Your task to perform on an android device: turn notification dots off Image 0: 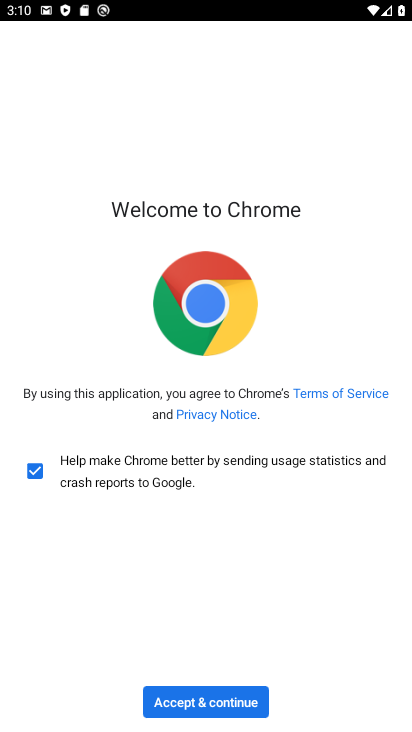
Step 0: press back button
Your task to perform on an android device: turn notification dots off Image 1: 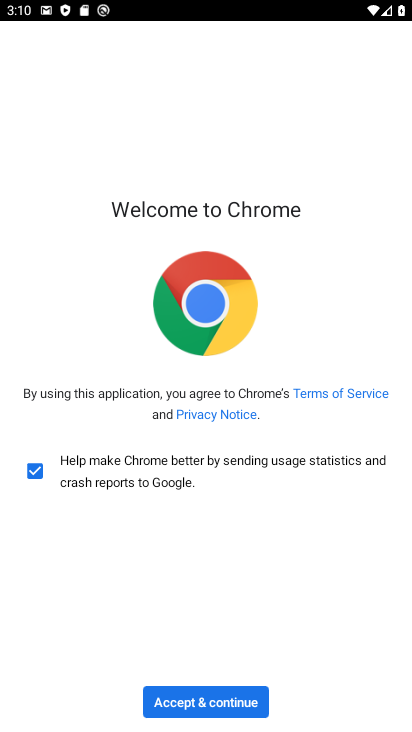
Step 1: press back button
Your task to perform on an android device: turn notification dots off Image 2: 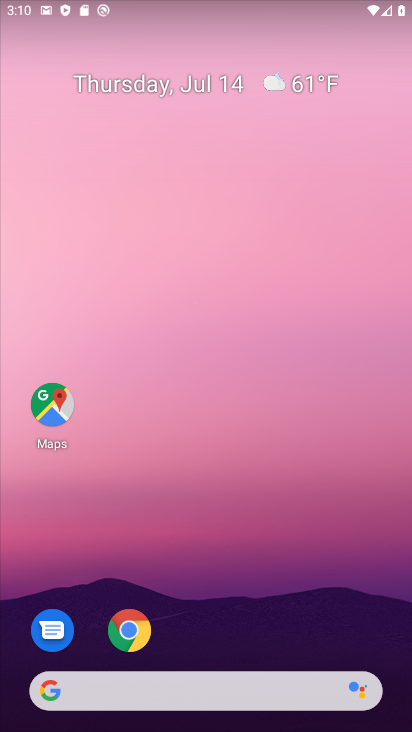
Step 2: drag from (198, 674) to (96, 57)
Your task to perform on an android device: turn notification dots off Image 3: 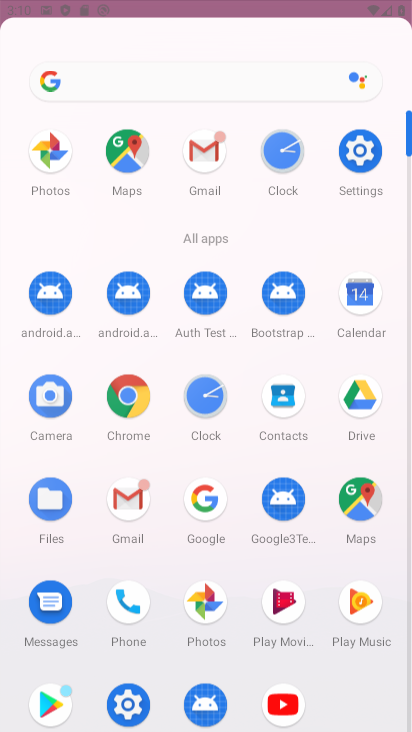
Step 3: drag from (254, 517) to (141, 12)
Your task to perform on an android device: turn notification dots off Image 4: 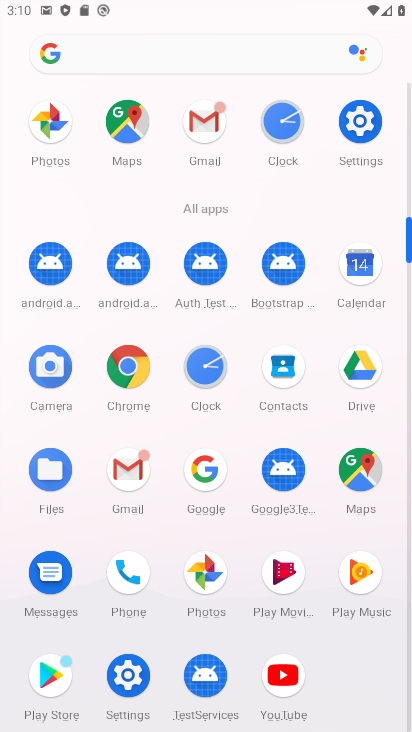
Step 4: click (364, 123)
Your task to perform on an android device: turn notification dots off Image 5: 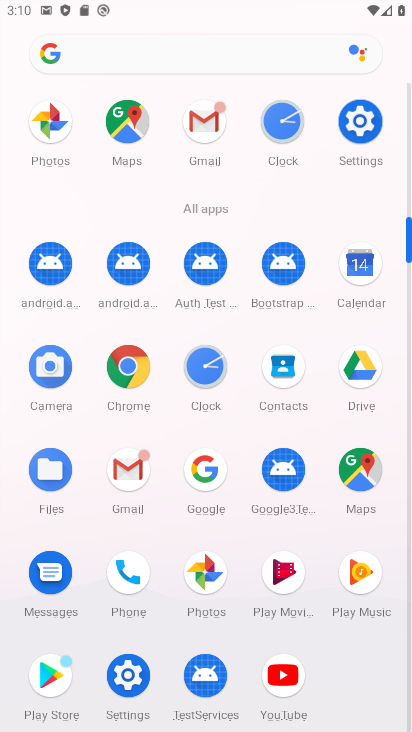
Step 5: click (363, 124)
Your task to perform on an android device: turn notification dots off Image 6: 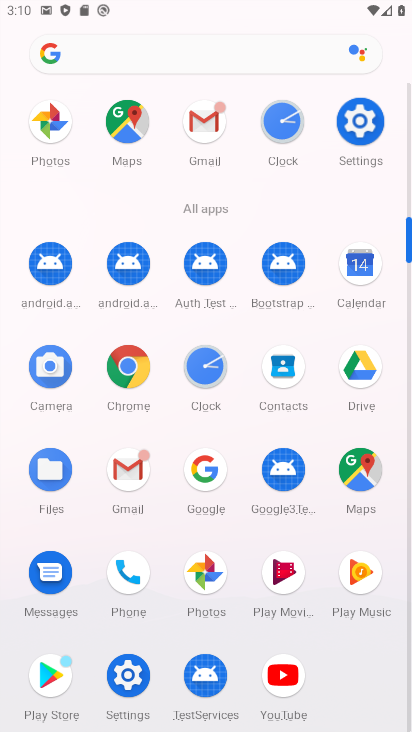
Step 6: click (360, 128)
Your task to perform on an android device: turn notification dots off Image 7: 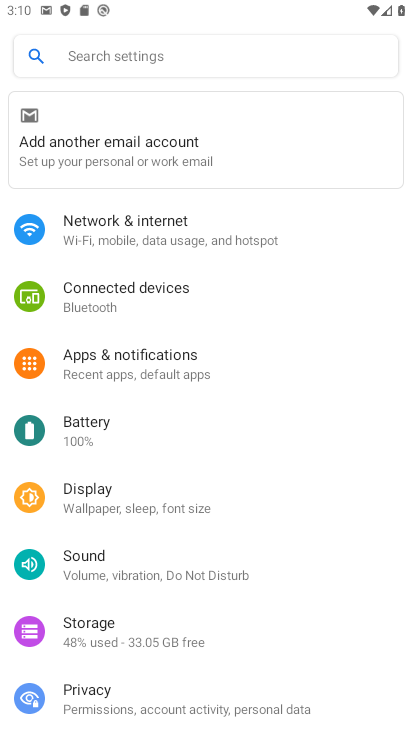
Step 7: click (128, 360)
Your task to perform on an android device: turn notification dots off Image 8: 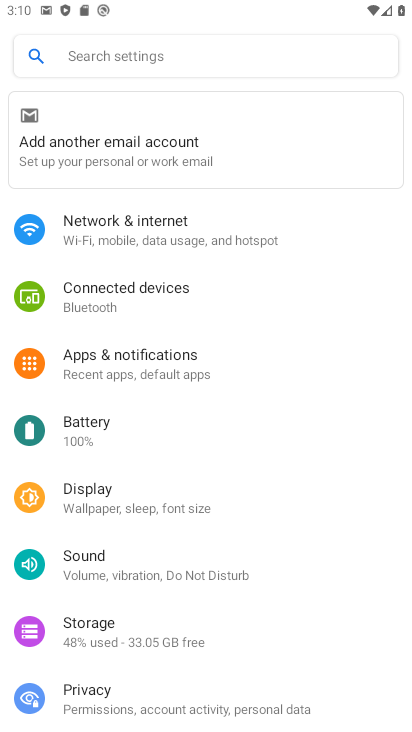
Step 8: click (128, 360)
Your task to perform on an android device: turn notification dots off Image 9: 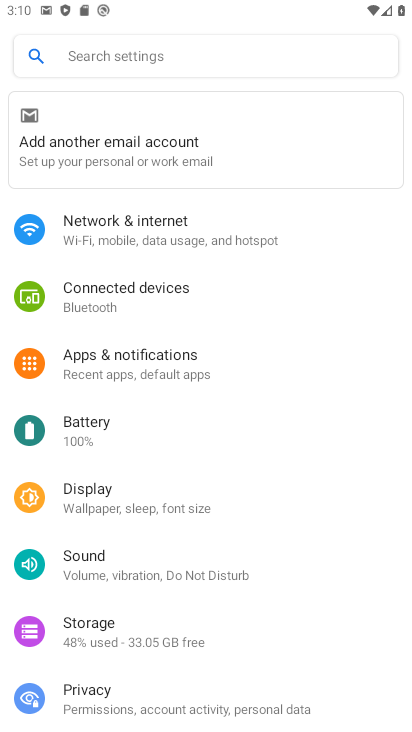
Step 9: click (128, 360)
Your task to perform on an android device: turn notification dots off Image 10: 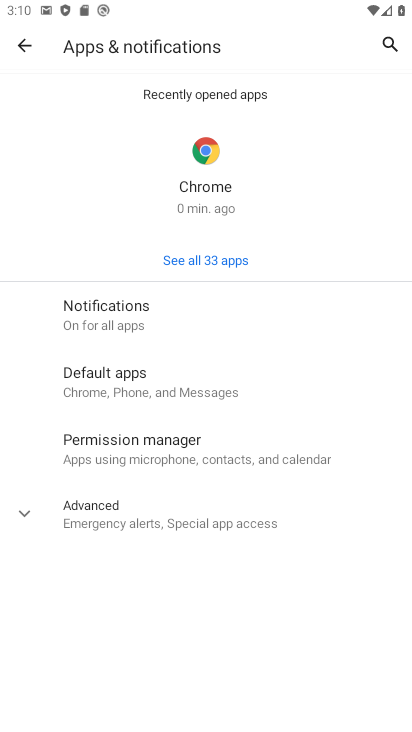
Step 10: click (66, 313)
Your task to perform on an android device: turn notification dots off Image 11: 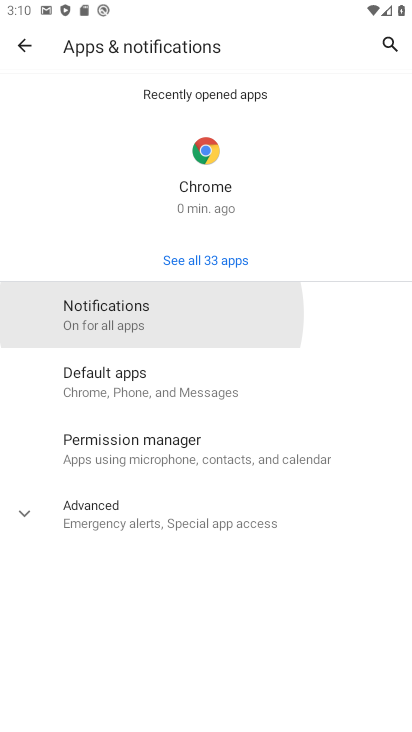
Step 11: click (76, 315)
Your task to perform on an android device: turn notification dots off Image 12: 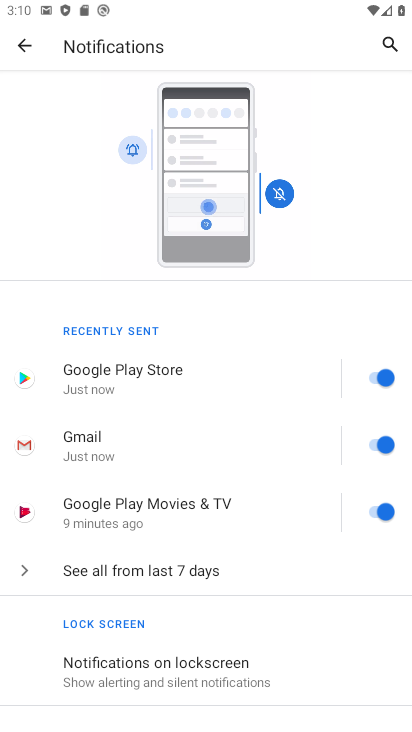
Step 12: drag from (188, 479) to (131, 361)
Your task to perform on an android device: turn notification dots off Image 13: 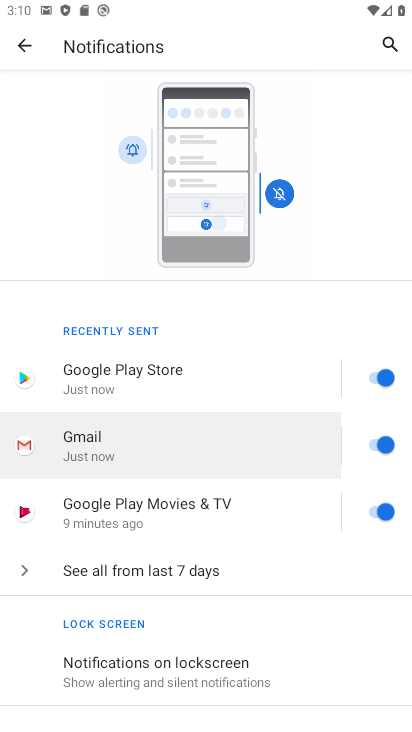
Step 13: drag from (150, 563) to (110, 322)
Your task to perform on an android device: turn notification dots off Image 14: 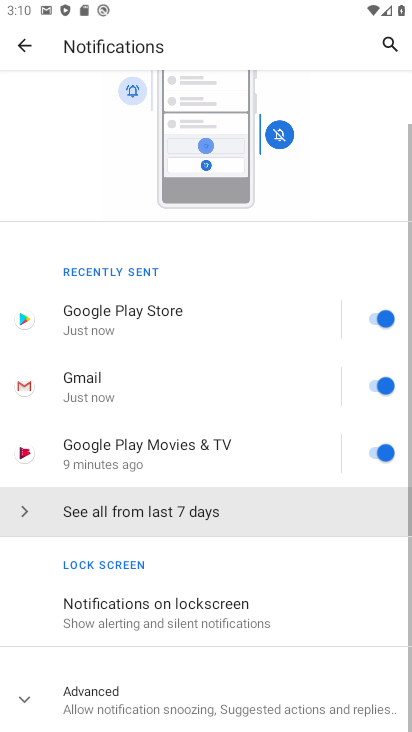
Step 14: drag from (169, 509) to (107, 201)
Your task to perform on an android device: turn notification dots off Image 15: 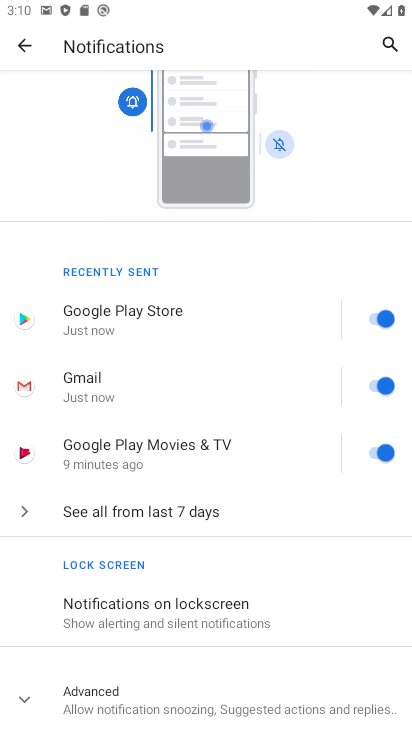
Step 15: click (119, 704)
Your task to perform on an android device: turn notification dots off Image 16: 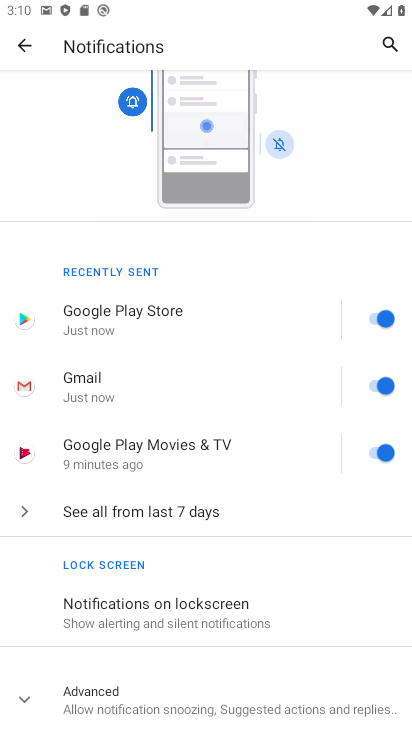
Step 16: click (115, 700)
Your task to perform on an android device: turn notification dots off Image 17: 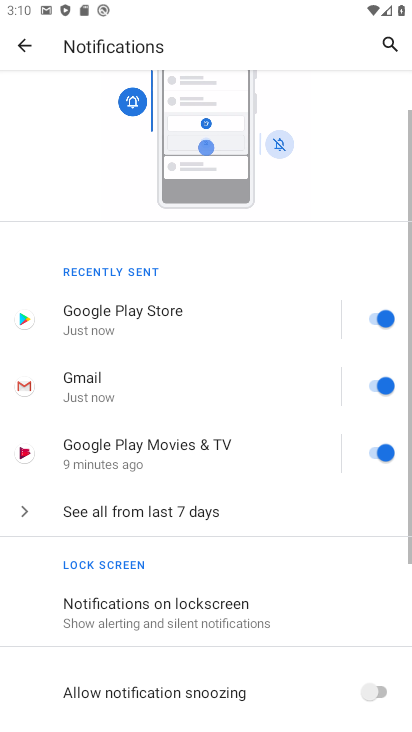
Step 17: click (111, 697)
Your task to perform on an android device: turn notification dots off Image 18: 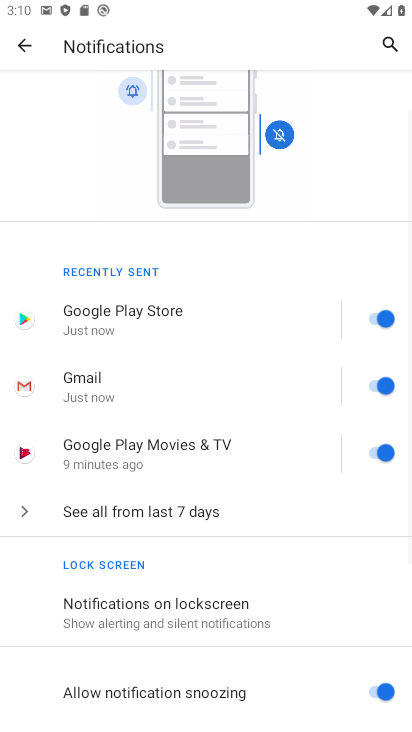
Step 18: drag from (138, 583) to (56, 305)
Your task to perform on an android device: turn notification dots off Image 19: 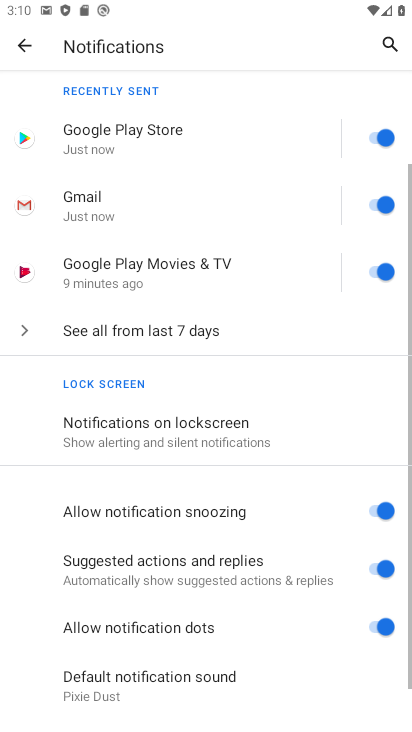
Step 19: drag from (177, 585) to (157, 281)
Your task to perform on an android device: turn notification dots off Image 20: 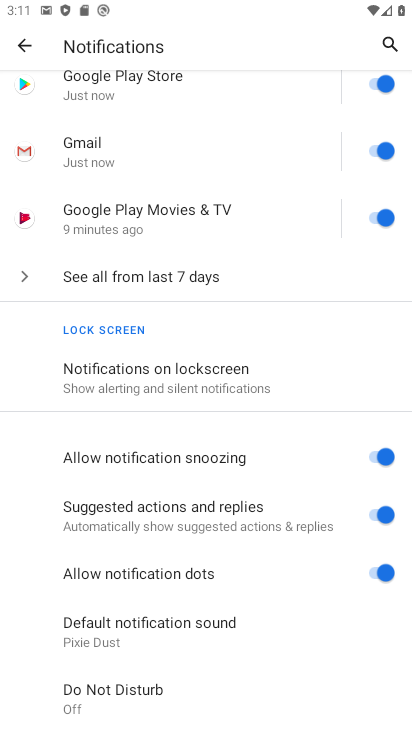
Step 20: click (391, 573)
Your task to perform on an android device: turn notification dots off Image 21: 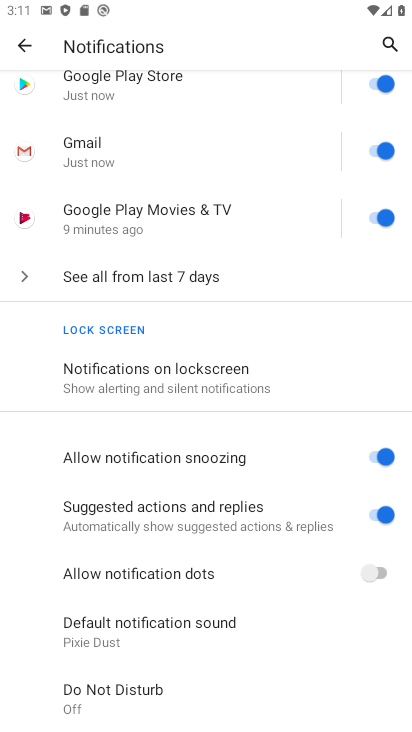
Step 21: task complete